Your task to perform on an android device: change the clock display to digital Image 0: 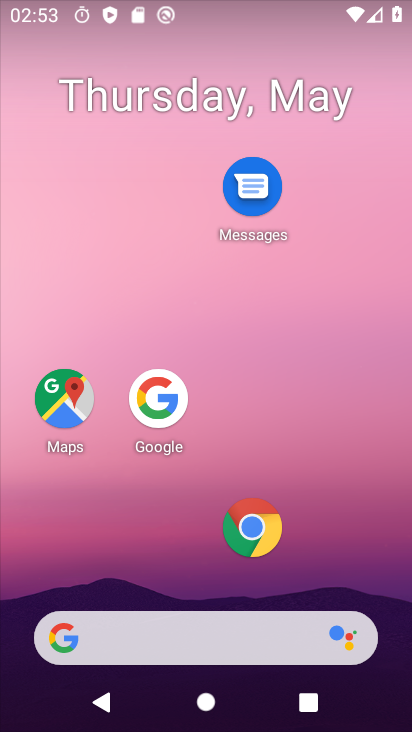
Step 0: click (391, 303)
Your task to perform on an android device: change the clock display to digital Image 1: 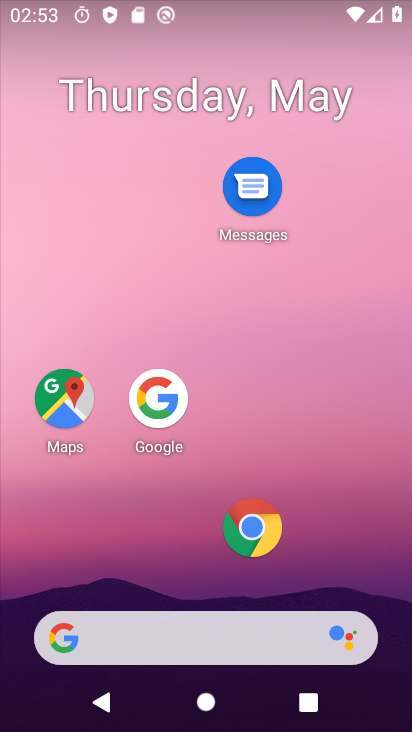
Step 1: drag from (182, 584) to (305, 198)
Your task to perform on an android device: change the clock display to digital Image 2: 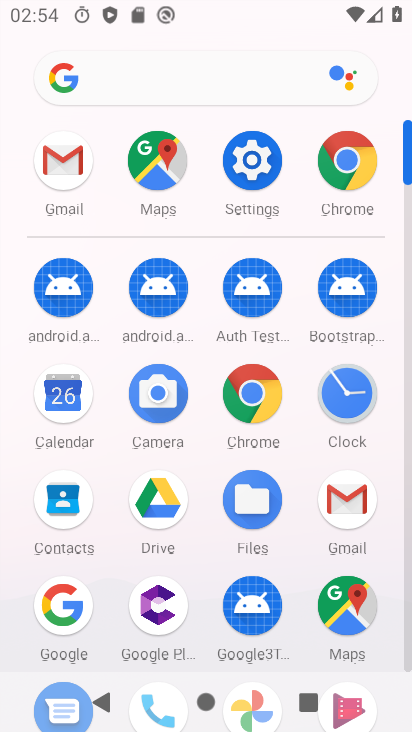
Step 2: click (244, 164)
Your task to perform on an android device: change the clock display to digital Image 3: 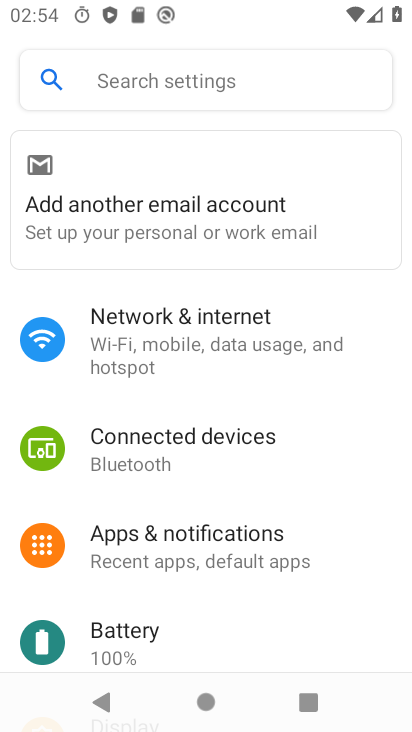
Step 3: drag from (254, 551) to (236, 147)
Your task to perform on an android device: change the clock display to digital Image 4: 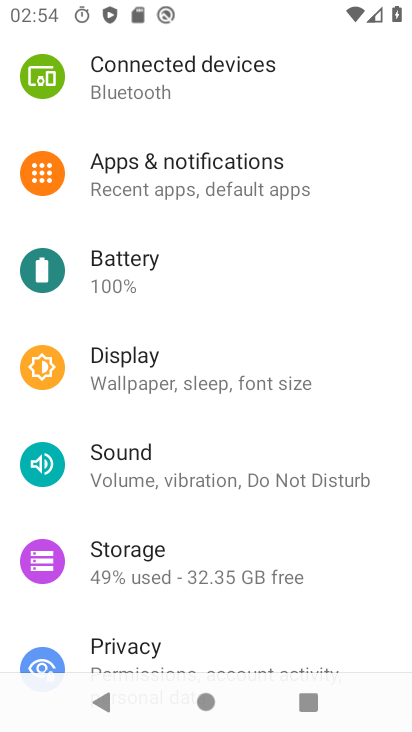
Step 4: drag from (245, 537) to (248, 148)
Your task to perform on an android device: change the clock display to digital Image 5: 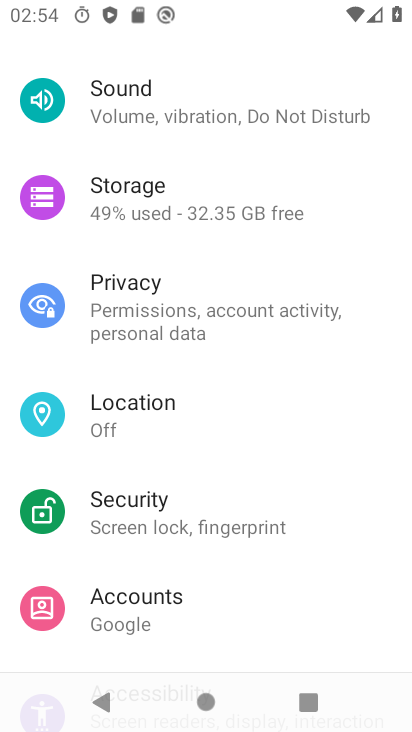
Step 5: press home button
Your task to perform on an android device: change the clock display to digital Image 6: 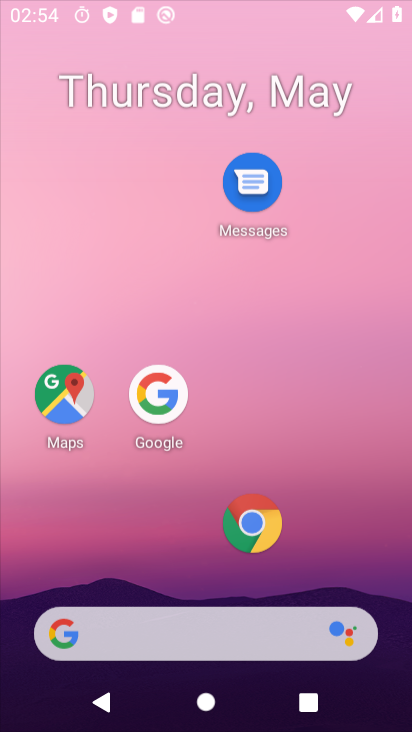
Step 6: drag from (176, 590) to (183, 77)
Your task to perform on an android device: change the clock display to digital Image 7: 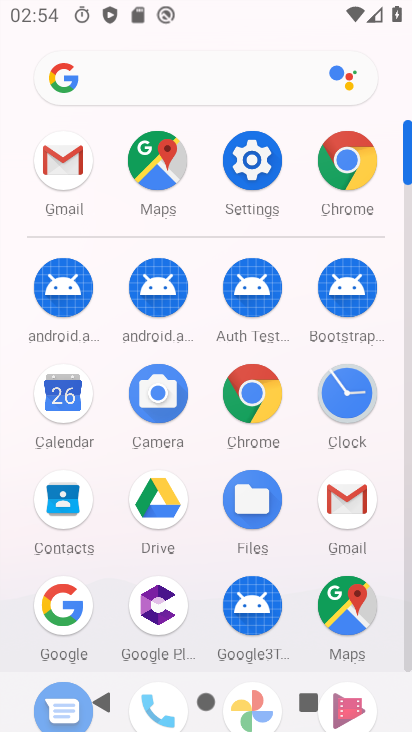
Step 7: click (344, 378)
Your task to perform on an android device: change the clock display to digital Image 8: 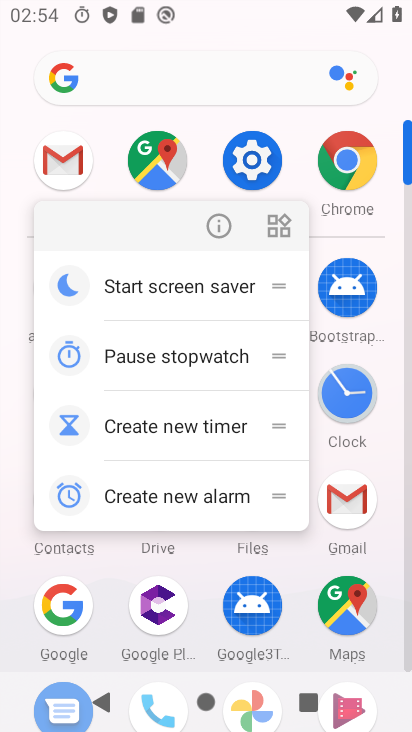
Step 8: click (222, 213)
Your task to perform on an android device: change the clock display to digital Image 9: 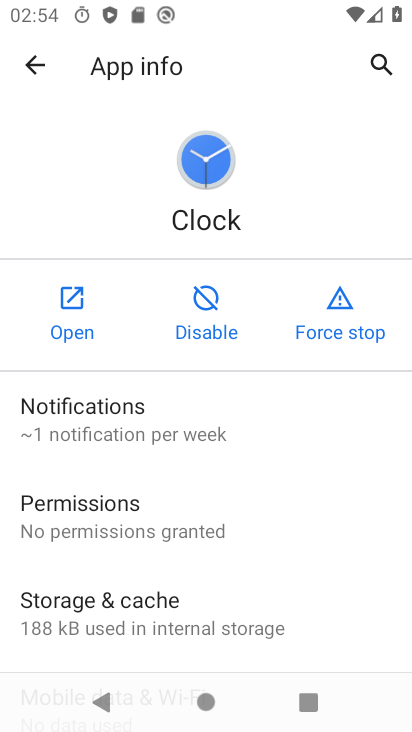
Step 9: click (68, 300)
Your task to perform on an android device: change the clock display to digital Image 10: 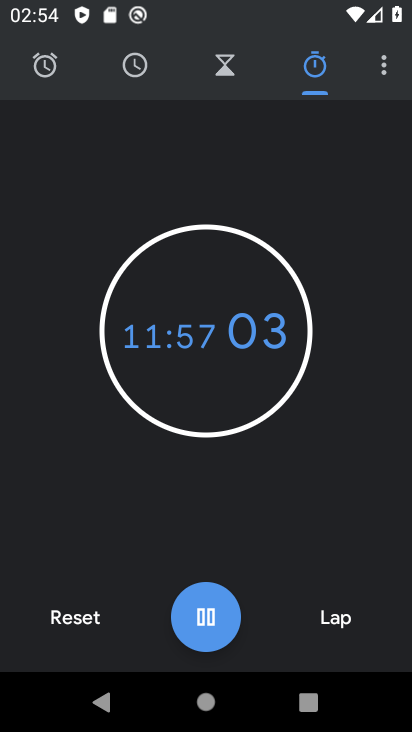
Step 10: click (381, 66)
Your task to perform on an android device: change the clock display to digital Image 11: 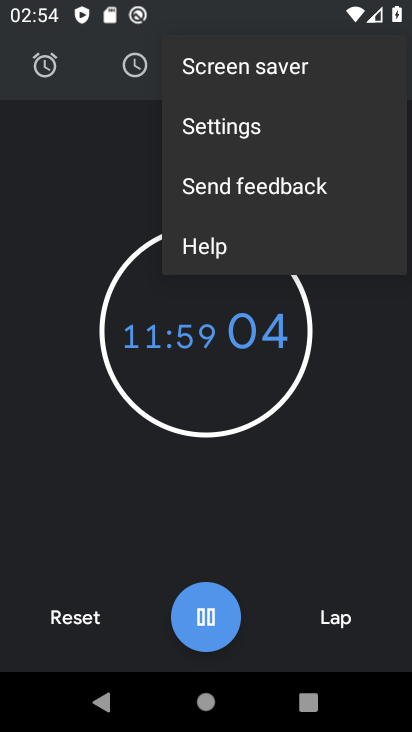
Step 11: click (220, 142)
Your task to perform on an android device: change the clock display to digital Image 12: 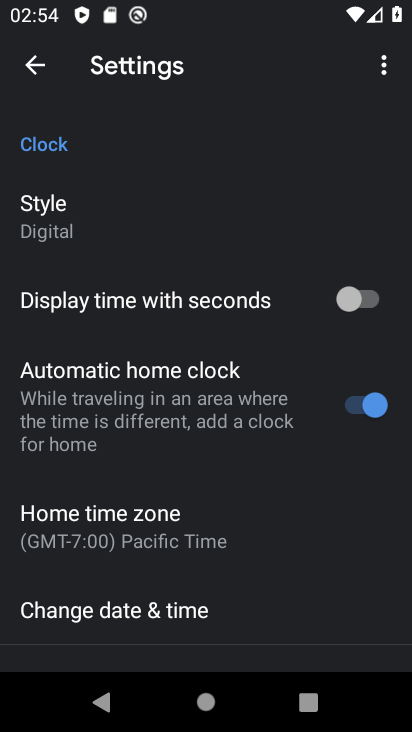
Step 12: click (121, 224)
Your task to perform on an android device: change the clock display to digital Image 13: 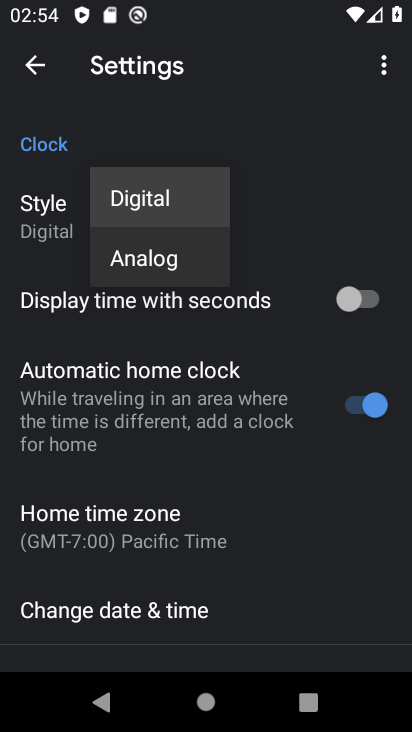
Step 13: click (162, 200)
Your task to perform on an android device: change the clock display to digital Image 14: 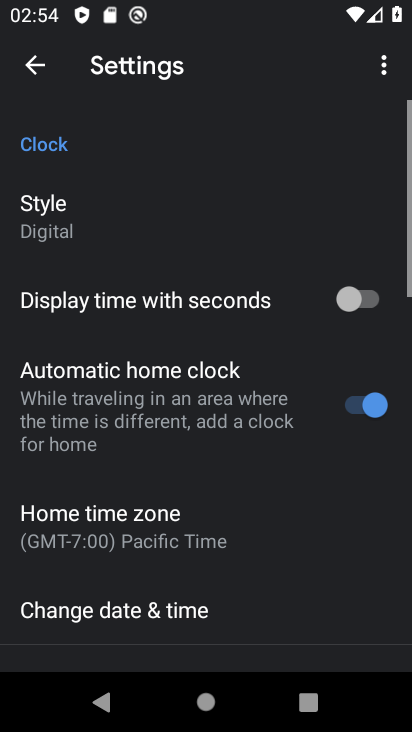
Step 14: task complete